Your task to perform on an android device: Open Chrome and go to settings Image 0: 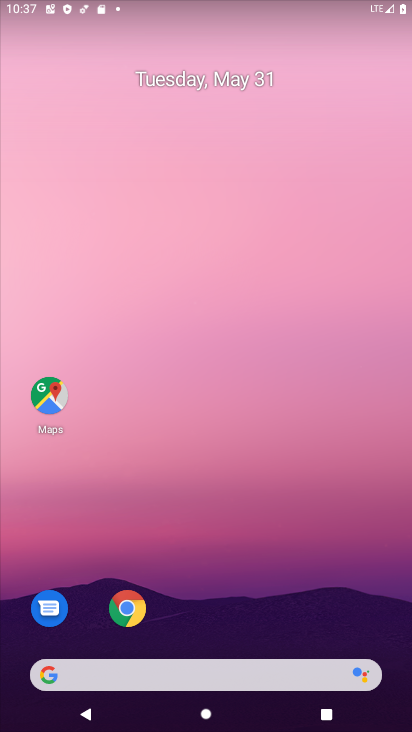
Step 0: click (138, 617)
Your task to perform on an android device: Open Chrome and go to settings Image 1: 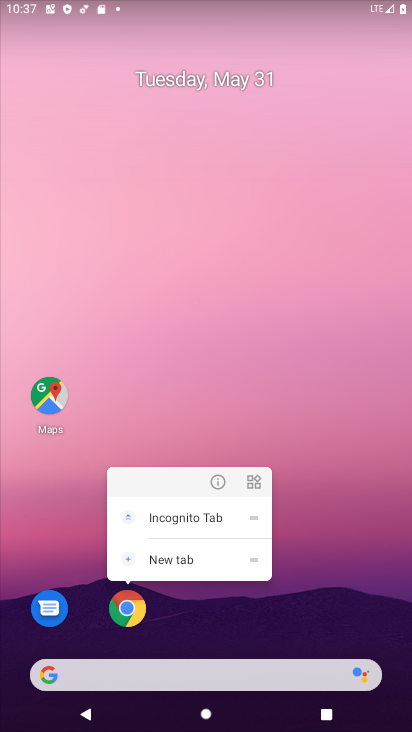
Step 1: click (137, 617)
Your task to perform on an android device: Open Chrome and go to settings Image 2: 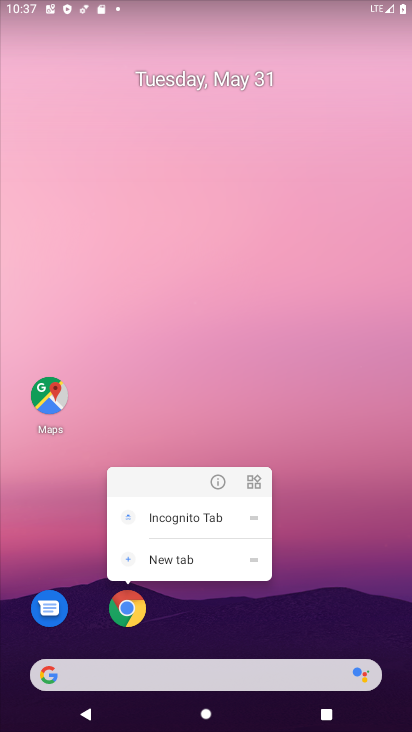
Step 2: click (137, 606)
Your task to perform on an android device: Open Chrome and go to settings Image 3: 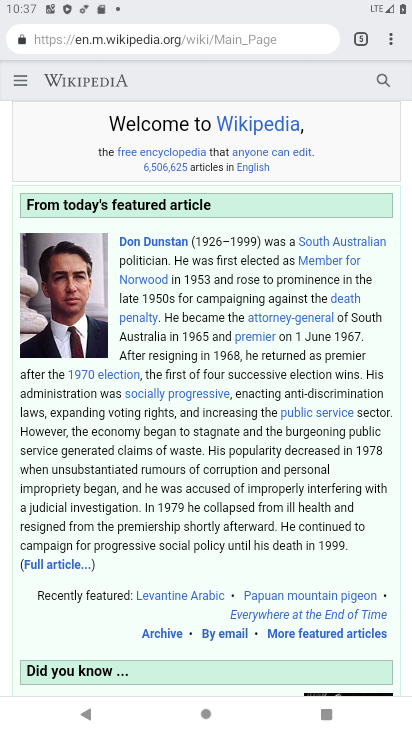
Step 3: task complete